Your task to perform on an android device: turn on javascript in the chrome app Image 0: 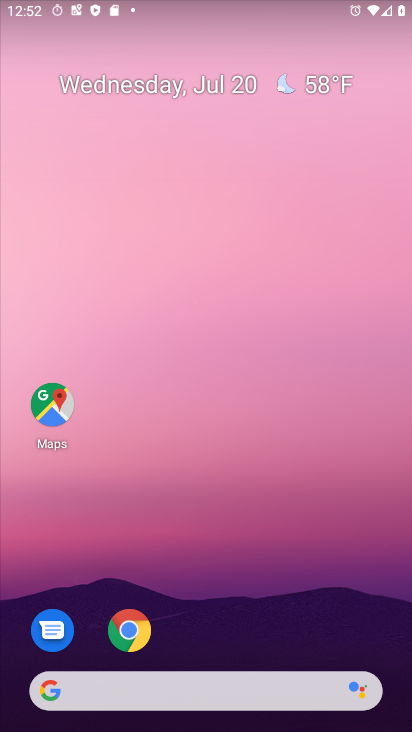
Step 0: press home button
Your task to perform on an android device: turn on javascript in the chrome app Image 1: 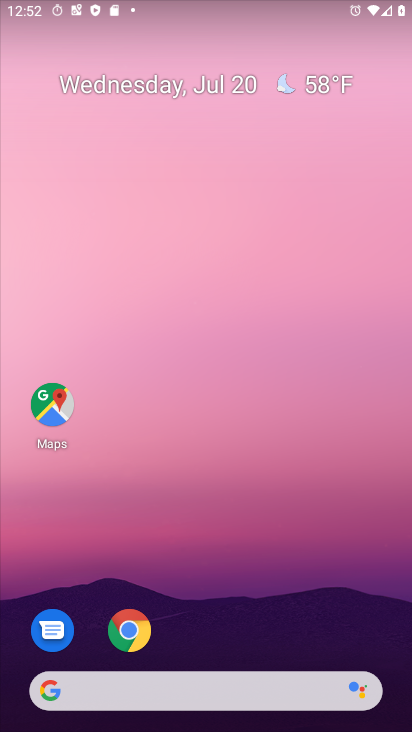
Step 1: click (126, 627)
Your task to perform on an android device: turn on javascript in the chrome app Image 2: 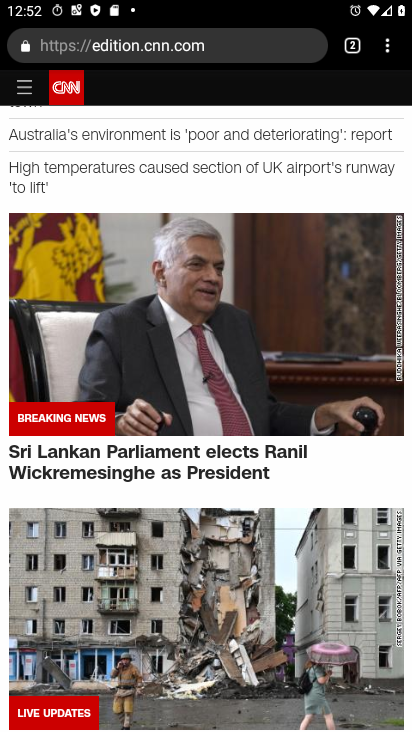
Step 2: drag from (387, 46) to (243, 497)
Your task to perform on an android device: turn on javascript in the chrome app Image 3: 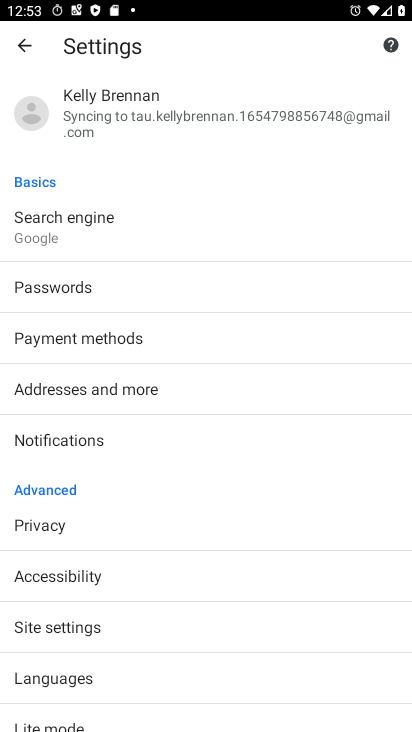
Step 3: click (71, 617)
Your task to perform on an android device: turn on javascript in the chrome app Image 4: 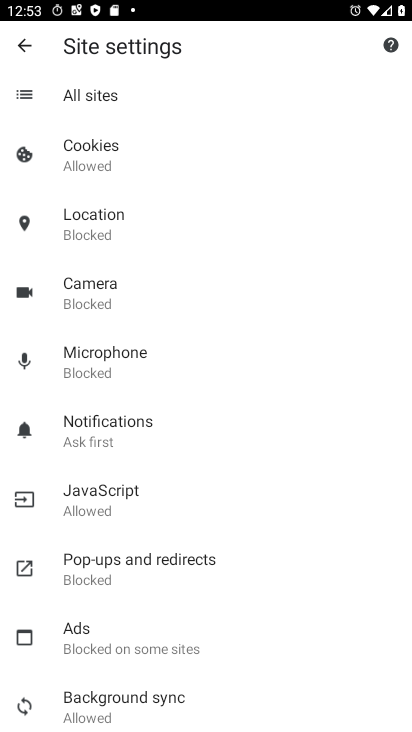
Step 4: click (107, 500)
Your task to perform on an android device: turn on javascript in the chrome app Image 5: 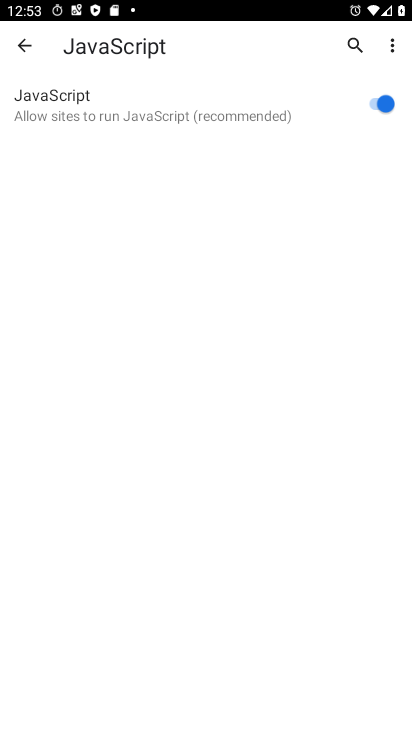
Step 5: task complete